Your task to perform on an android device: Open CNN.com Image 0: 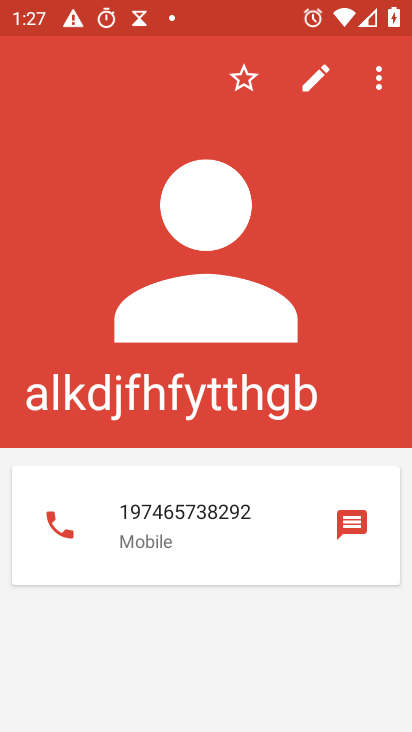
Step 0: press home button
Your task to perform on an android device: Open CNN.com Image 1: 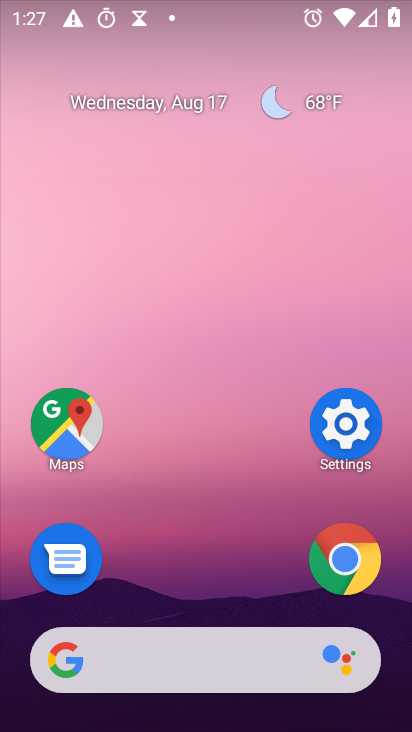
Step 1: click (349, 566)
Your task to perform on an android device: Open CNN.com Image 2: 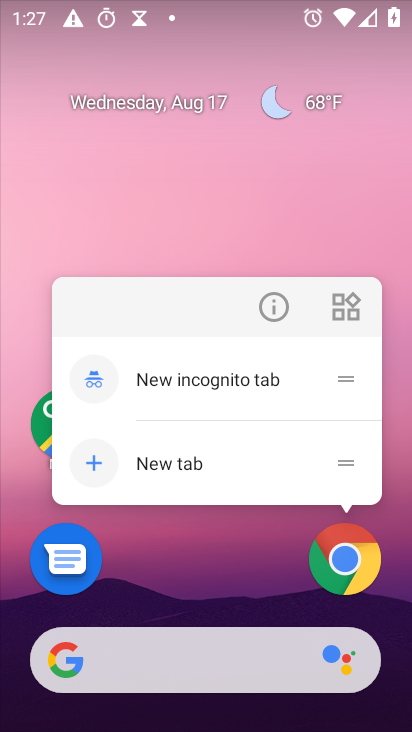
Step 2: click (348, 563)
Your task to perform on an android device: Open CNN.com Image 3: 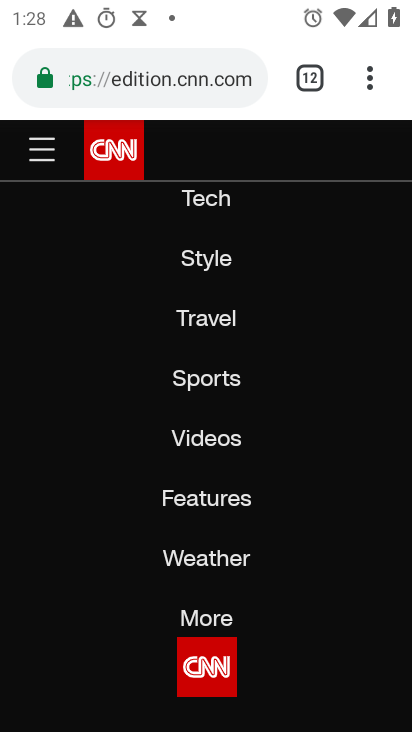
Step 3: task complete